Your task to perform on an android device: Go to network settings Image 0: 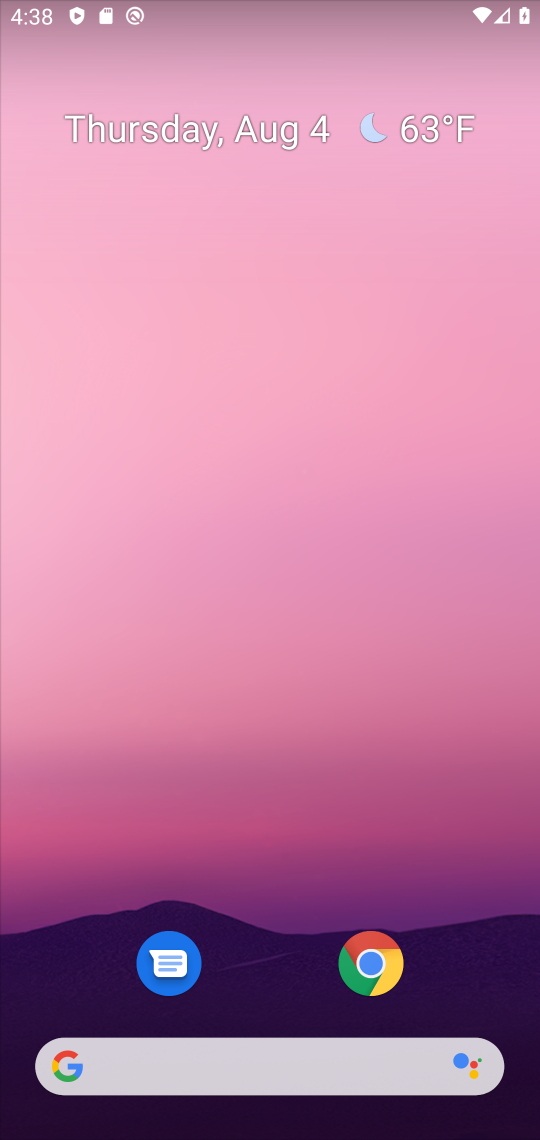
Step 0: press home button
Your task to perform on an android device: Go to network settings Image 1: 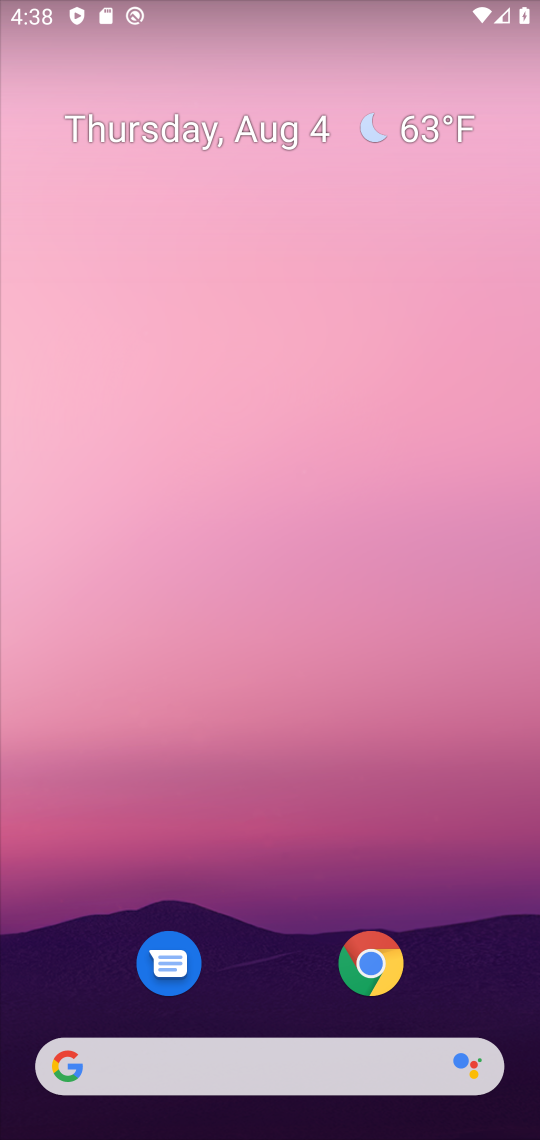
Step 1: drag from (277, 898) to (229, 65)
Your task to perform on an android device: Go to network settings Image 2: 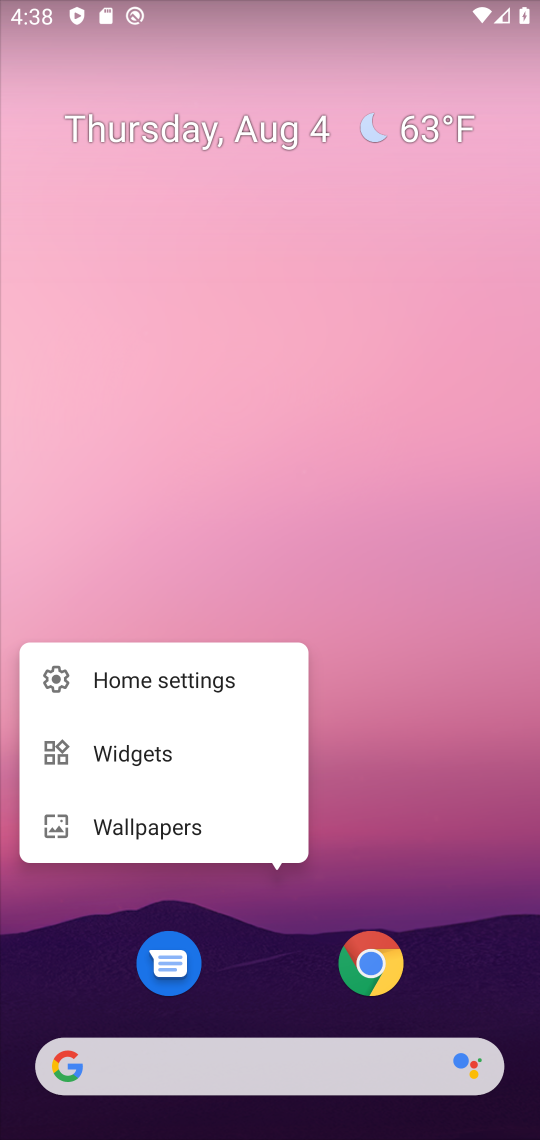
Step 2: click (304, 478)
Your task to perform on an android device: Go to network settings Image 3: 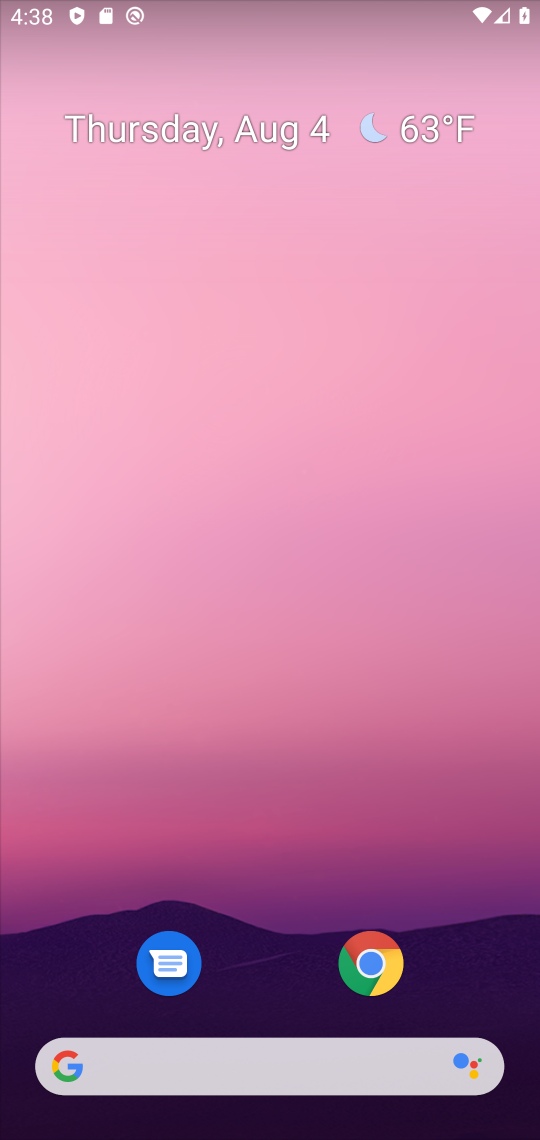
Step 3: drag from (292, 860) to (157, 33)
Your task to perform on an android device: Go to network settings Image 4: 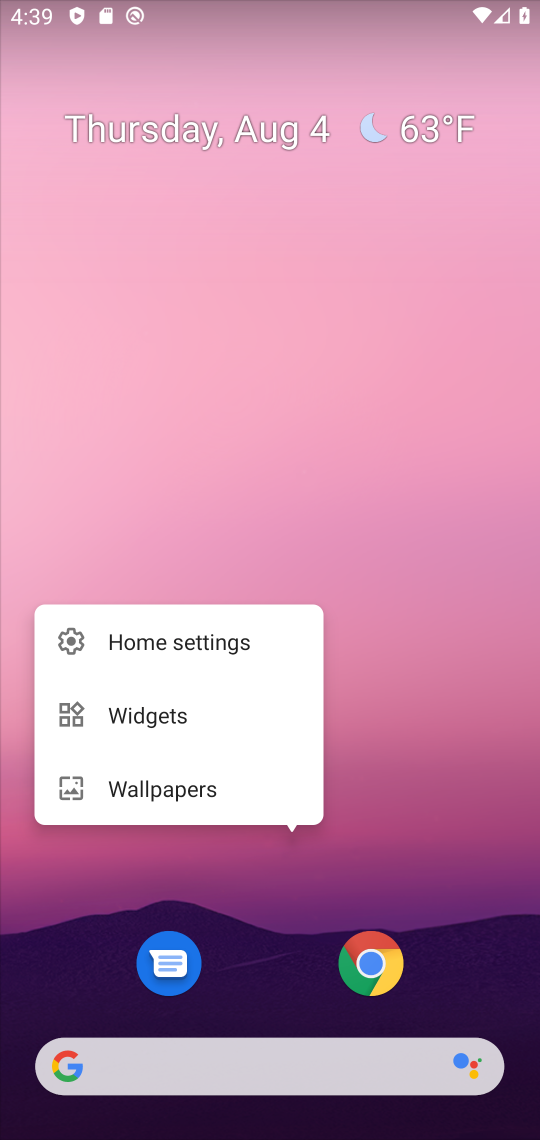
Step 4: click (268, 912)
Your task to perform on an android device: Go to network settings Image 5: 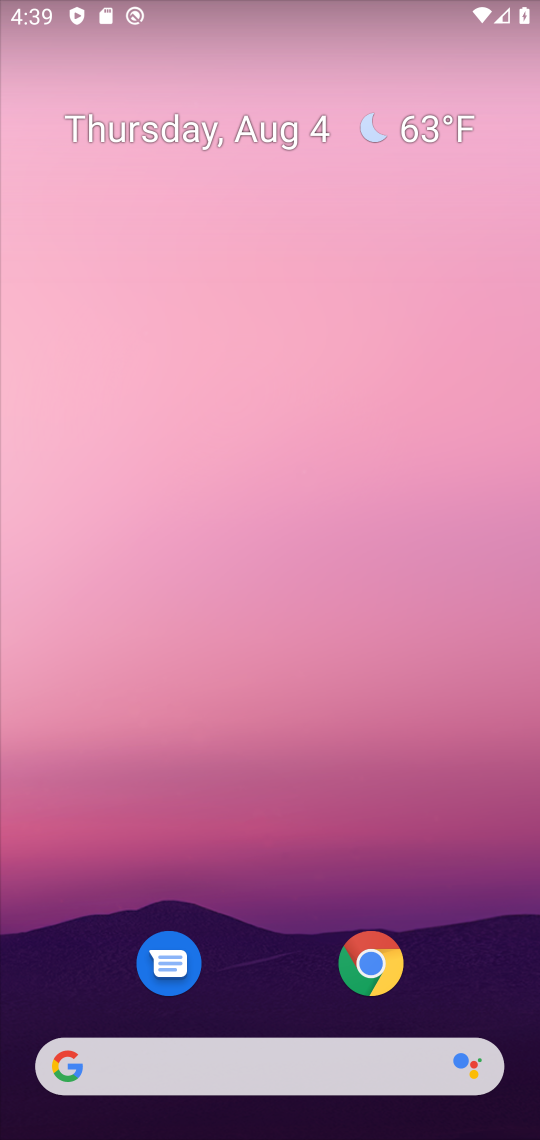
Step 5: drag from (292, 901) to (266, 15)
Your task to perform on an android device: Go to network settings Image 6: 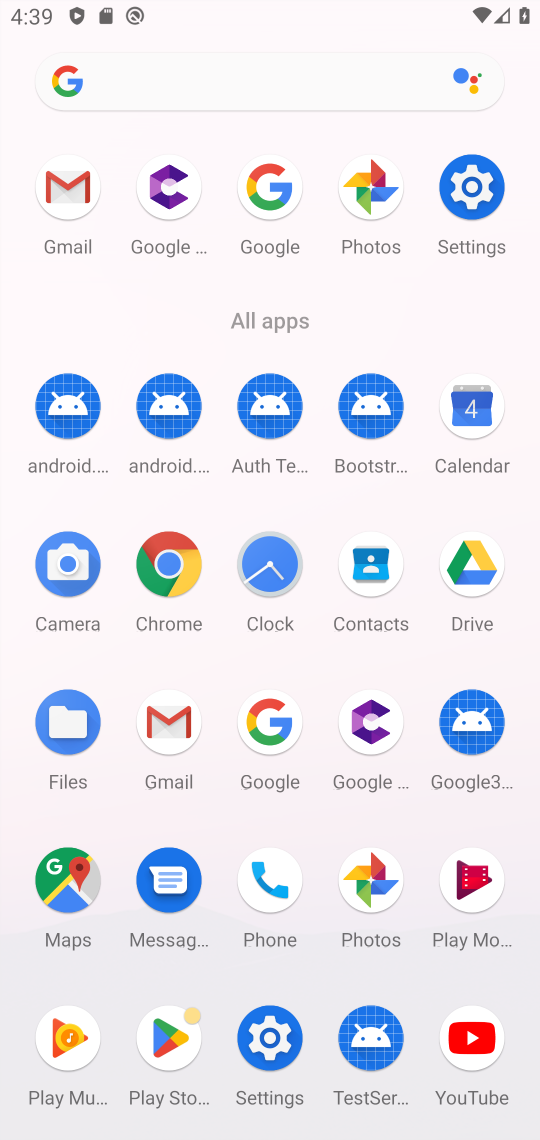
Step 6: click (478, 188)
Your task to perform on an android device: Go to network settings Image 7: 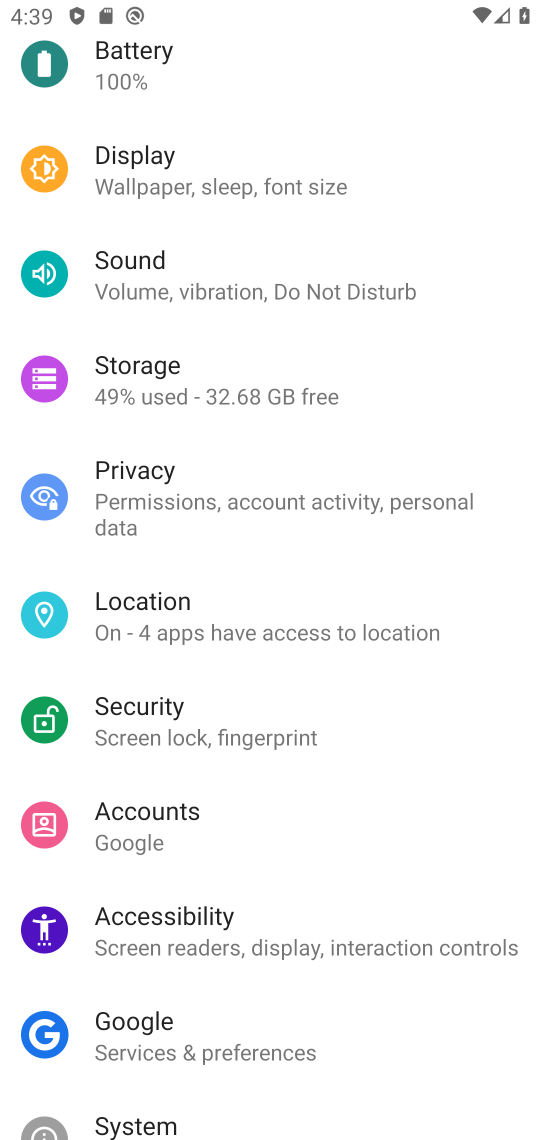
Step 7: drag from (198, 237) to (130, 959)
Your task to perform on an android device: Go to network settings Image 8: 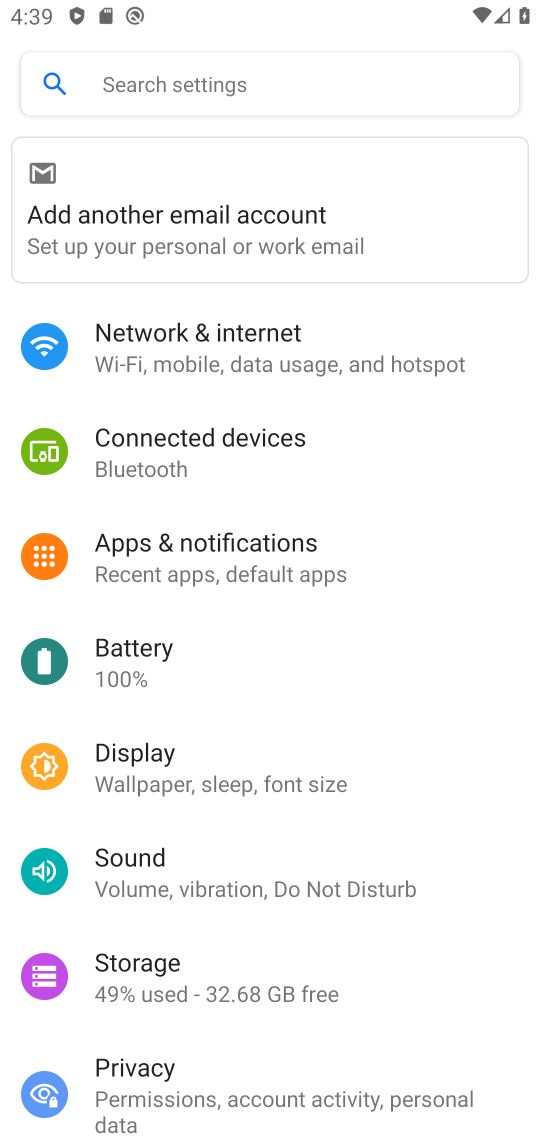
Step 8: click (156, 336)
Your task to perform on an android device: Go to network settings Image 9: 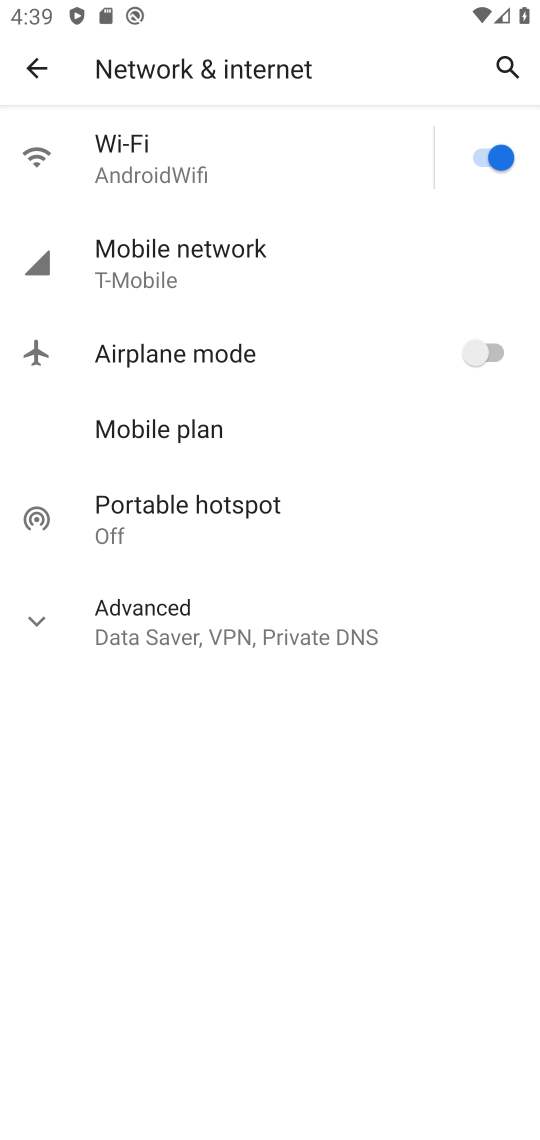
Step 9: click (197, 247)
Your task to perform on an android device: Go to network settings Image 10: 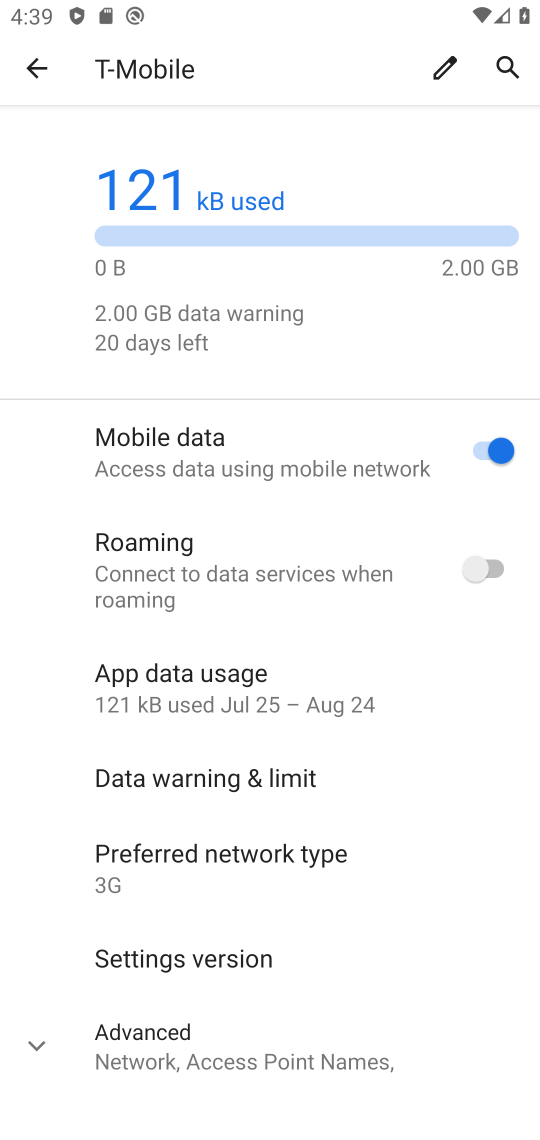
Step 10: task complete